Your task to perform on an android device: Go to network settings Image 0: 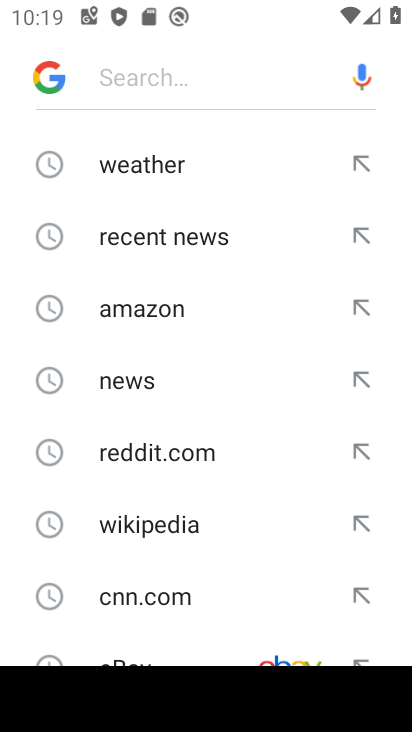
Step 0: press home button
Your task to perform on an android device: Go to network settings Image 1: 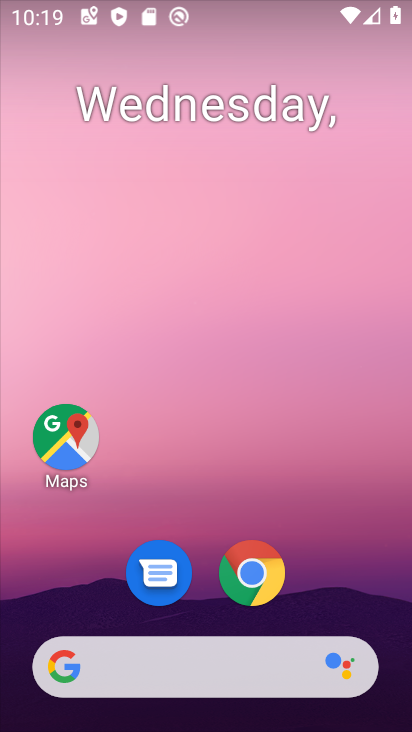
Step 1: drag from (377, 547) to (389, 78)
Your task to perform on an android device: Go to network settings Image 2: 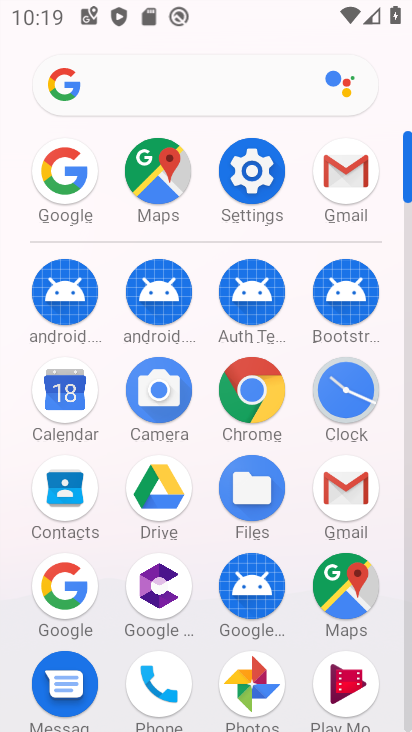
Step 2: click (262, 173)
Your task to perform on an android device: Go to network settings Image 3: 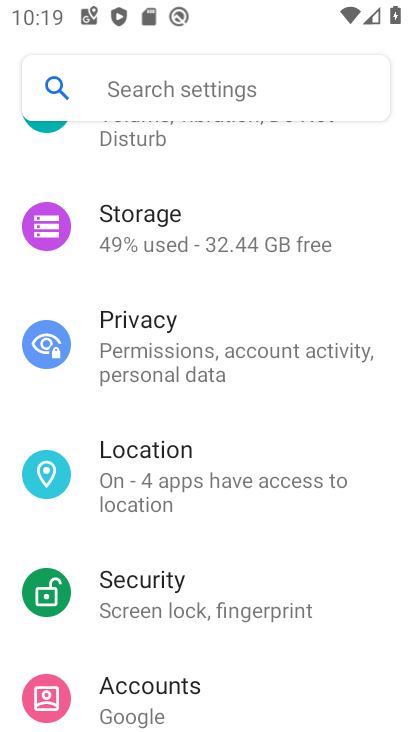
Step 3: drag from (363, 209) to (364, 326)
Your task to perform on an android device: Go to network settings Image 4: 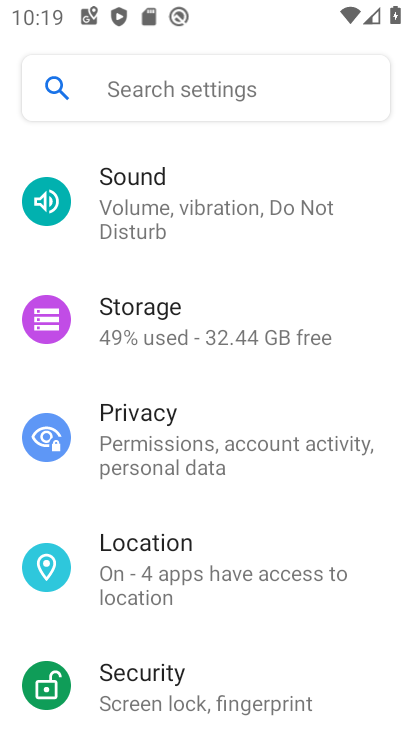
Step 4: drag from (373, 237) to (373, 383)
Your task to perform on an android device: Go to network settings Image 5: 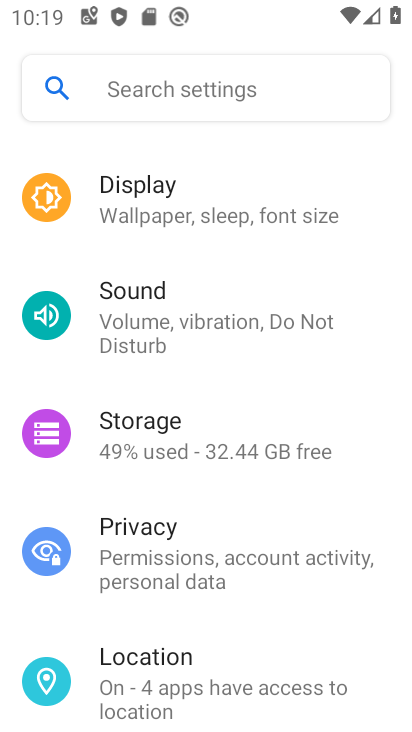
Step 5: drag from (377, 272) to (369, 377)
Your task to perform on an android device: Go to network settings Image 6: 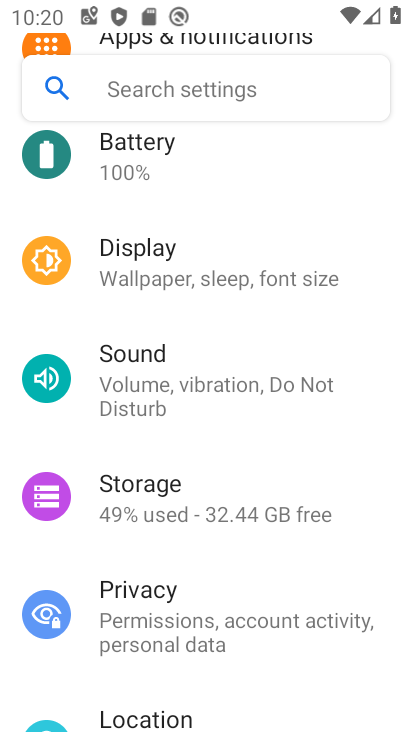
Step 6: drag from (366, 267) to (364, 394)
Your task to perform on an android device: Go to network settings Image 7: 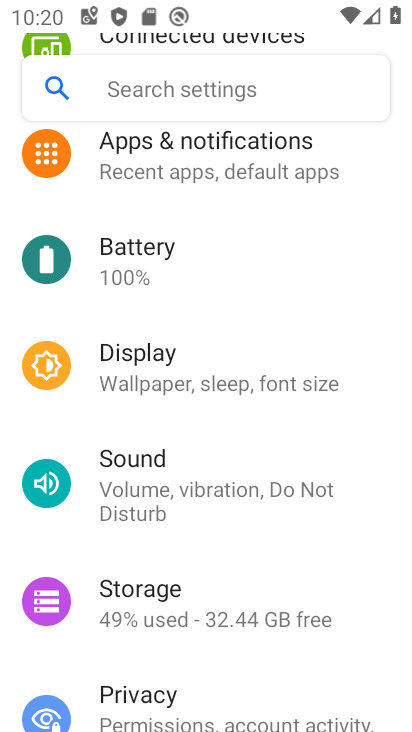
Step 7: drag from (376, 339) to (399, 433)
Your task to perform on an android device: Go to network settings Image 8: 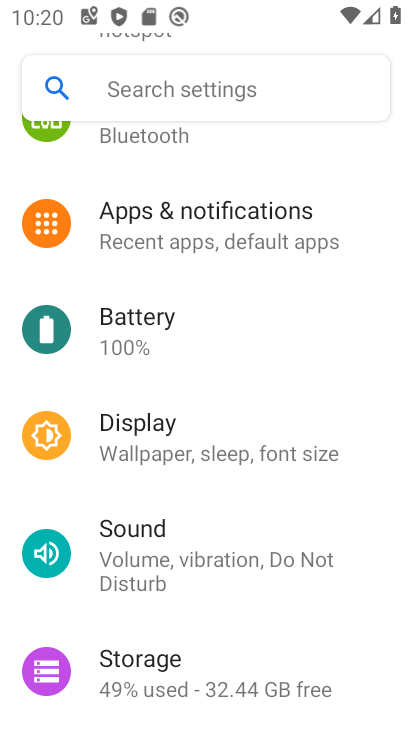
Step 8: drag from (374, 278) to (389, 420)
Your task to perform on an android device: Go to network settings Image 9: 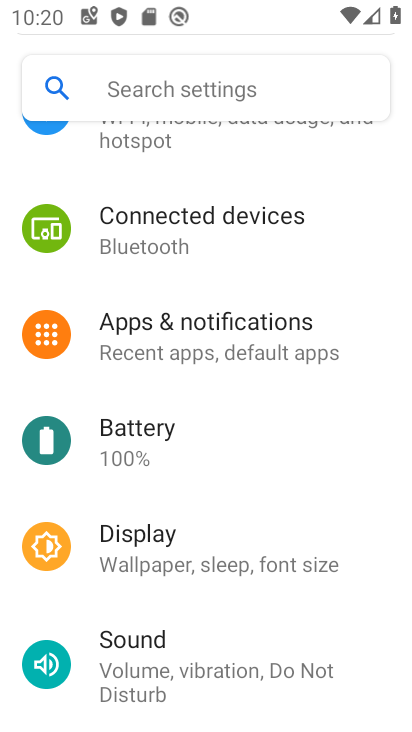
Step 9: drag from (364, 307) to (365, 430)
Your task to perform on an android device: Go to network settings Image 10: 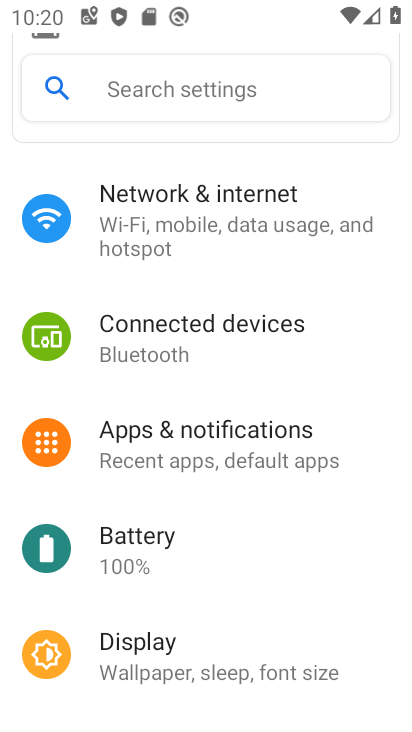
Step 10: drag from (355, 348) to (370, 515)
Your task to perform on an android device: Go to network settings Image 11: 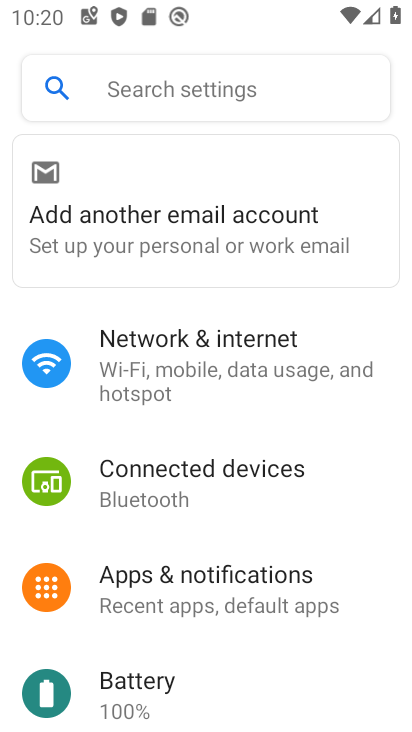
Step 11: click (303, 369)
Your task to perform on an android device: Go to network settings Image 12: 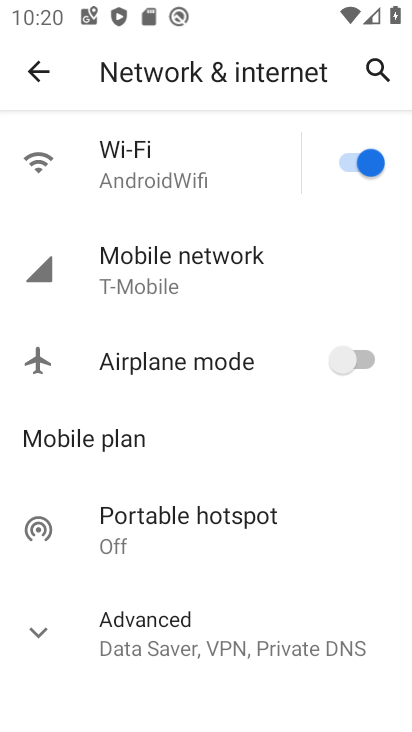
Step 12: task complete